Your task to perform on an android device: Empty the shopping cart on walmart.com. Search for razer blackwidow on walmart.com, select the first entry, and add it to the cart. Image 0: 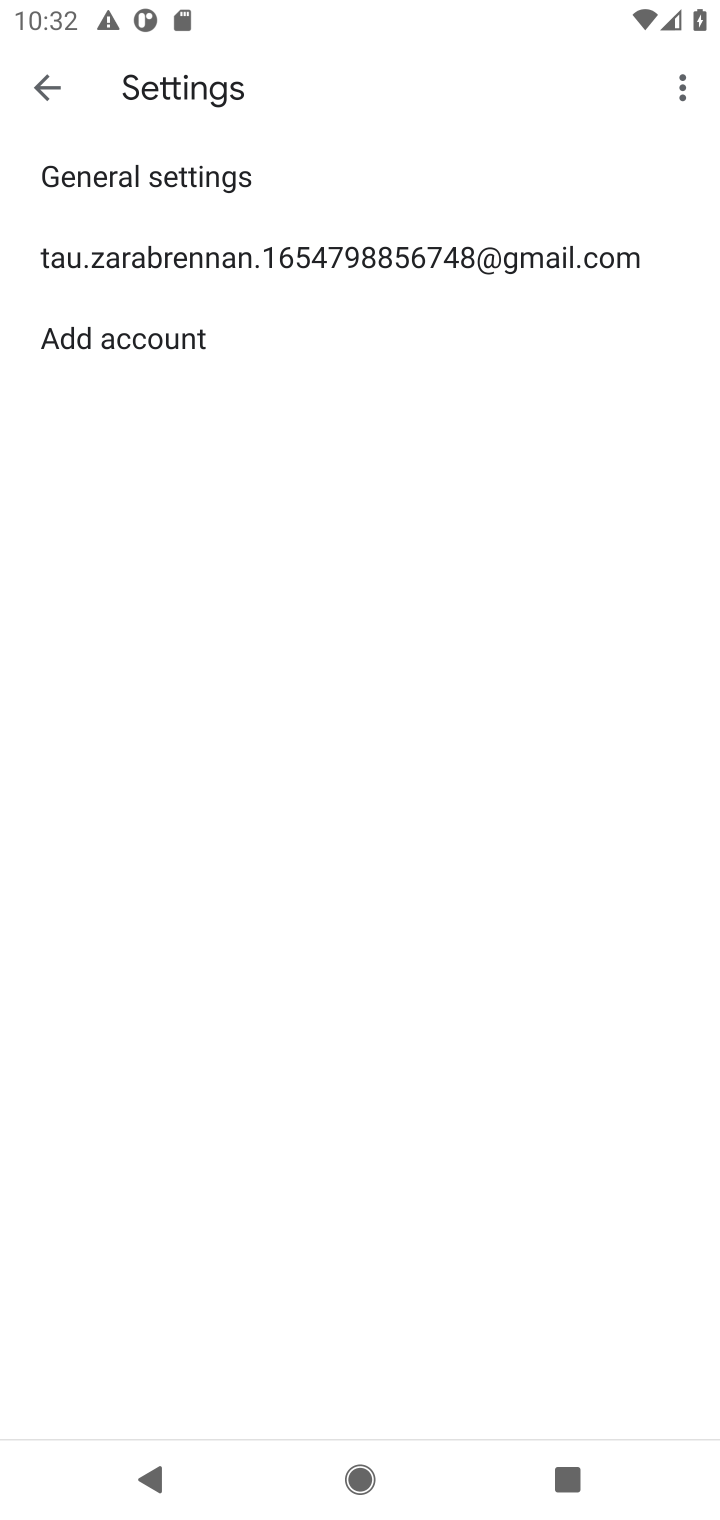
Step 0: press home button
Your task to perform on an android device: Empty the shopping cart on walmart.com. Search for razer blackwidow on walmart.com, select the first entry, and add it to the cart. Image 1: 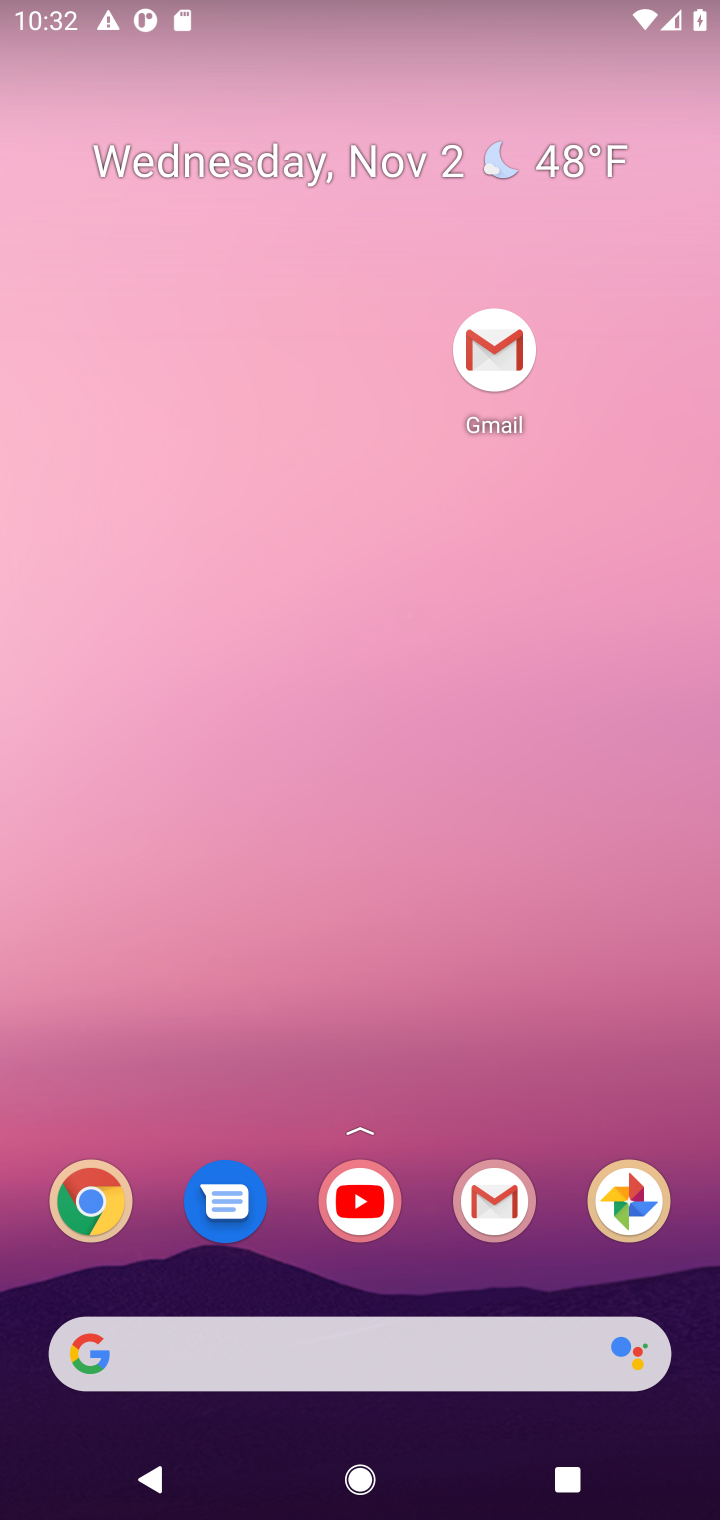
Step 1: drag from (424, 1233) to (270, 201)
Your task to perform on an android device: Empty the shopping cart on walmart.com. Search for razer blackwidow on walmart.com, select the first entry, and add it to the cart. Image 2: 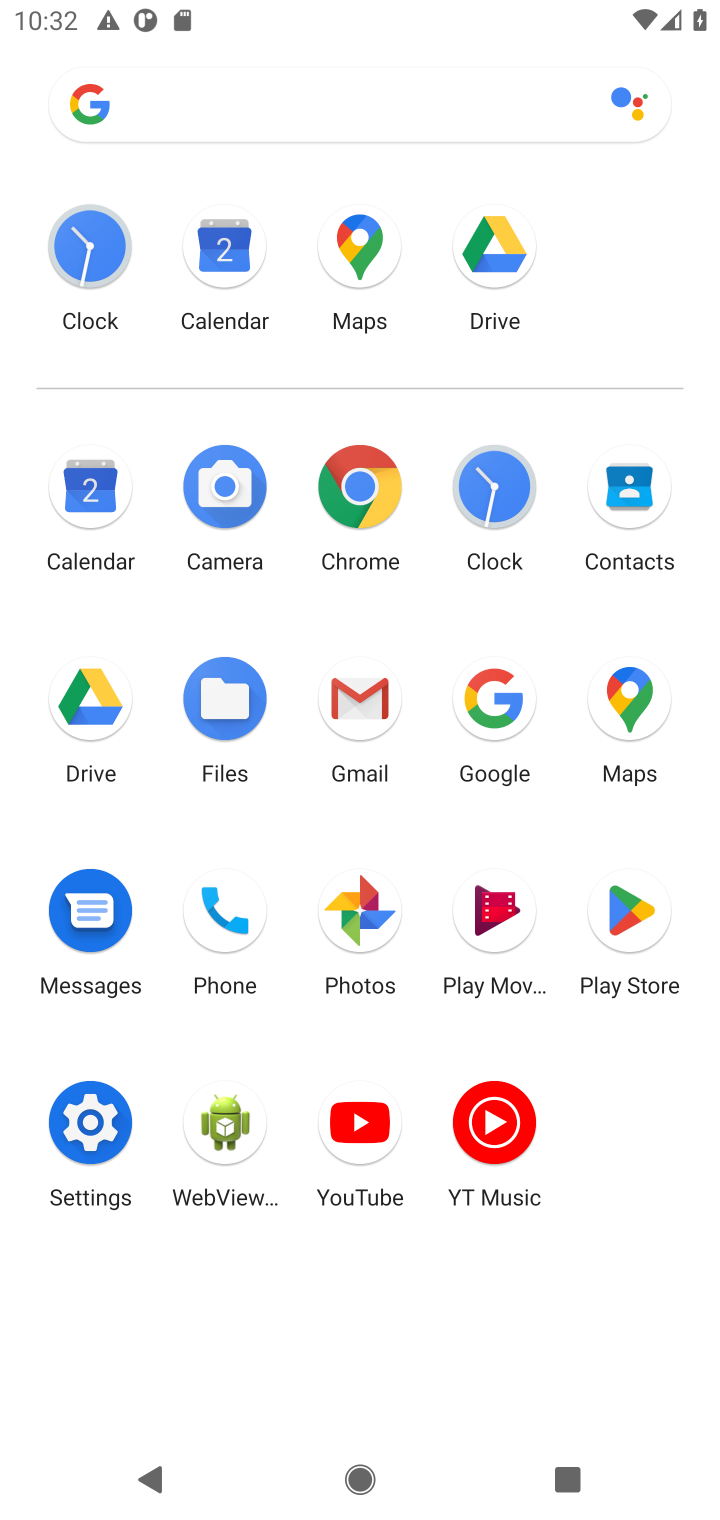
Step 2: click (358, 486)
Your task to perform on an android device: Empty the shopping cart on walmart.com. Search for razer blackwidow on walmart.com, select the first entry, and add it to the cart. Image 3: 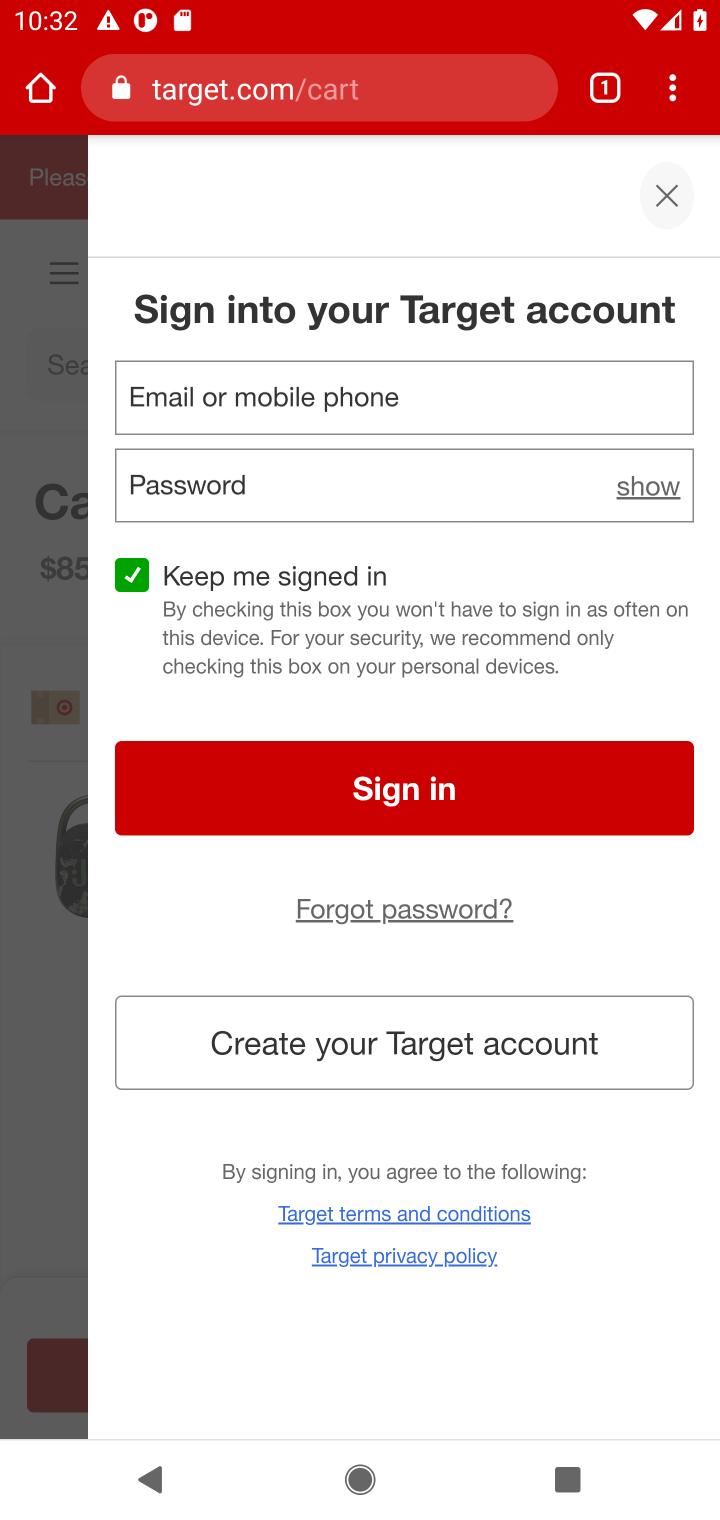
Step 3: click (441, 71)
Your task to perform on an android device: Empty the shopping cart on walmart.com. Search for razer blackwidow on walmart.com, select the first entry, and add it to the cart. Image 4: 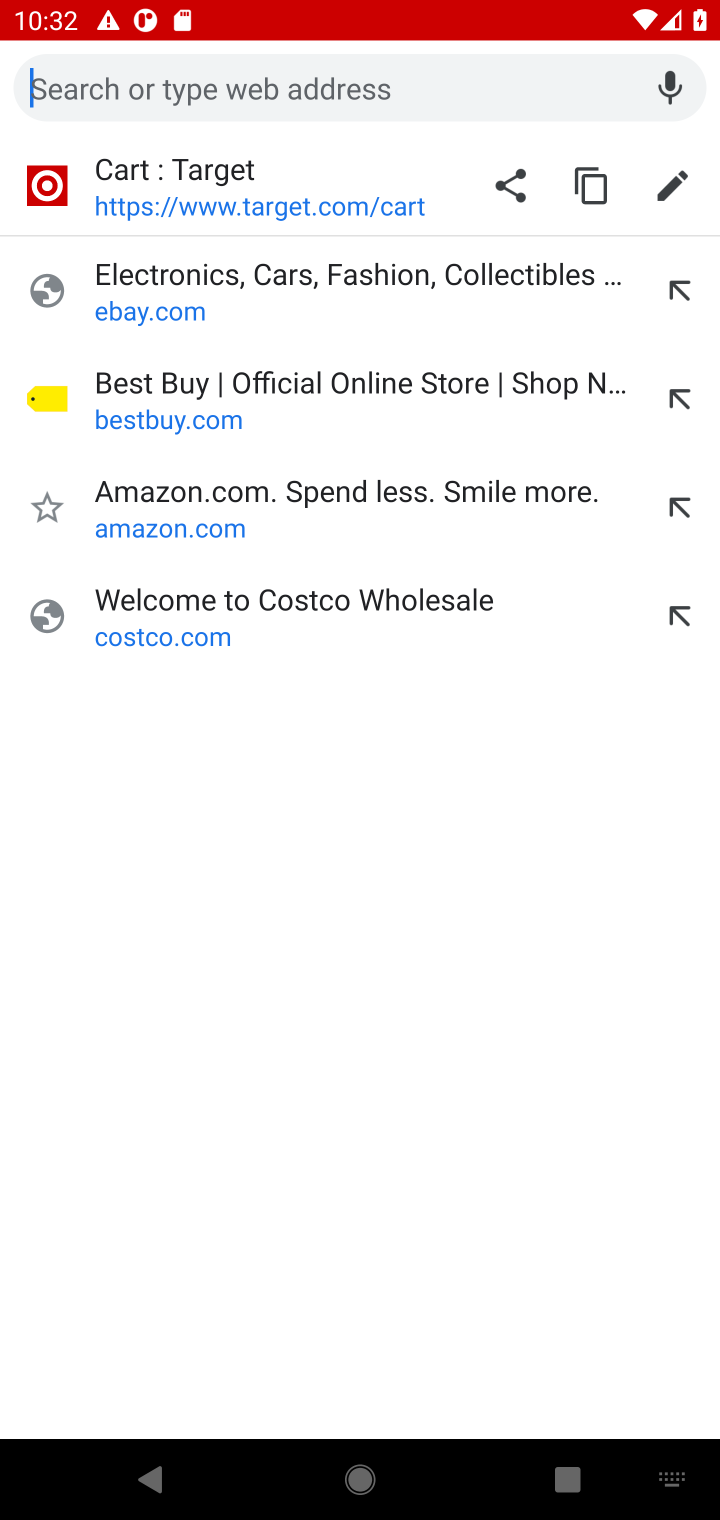
Step 4: type "walmart.com"
Your task to perform on an android device: Empty the shopping cart on walmart.com. Search for razer blackwidow on walmart.com, select the first entry, and add it to the cart. Image 5: 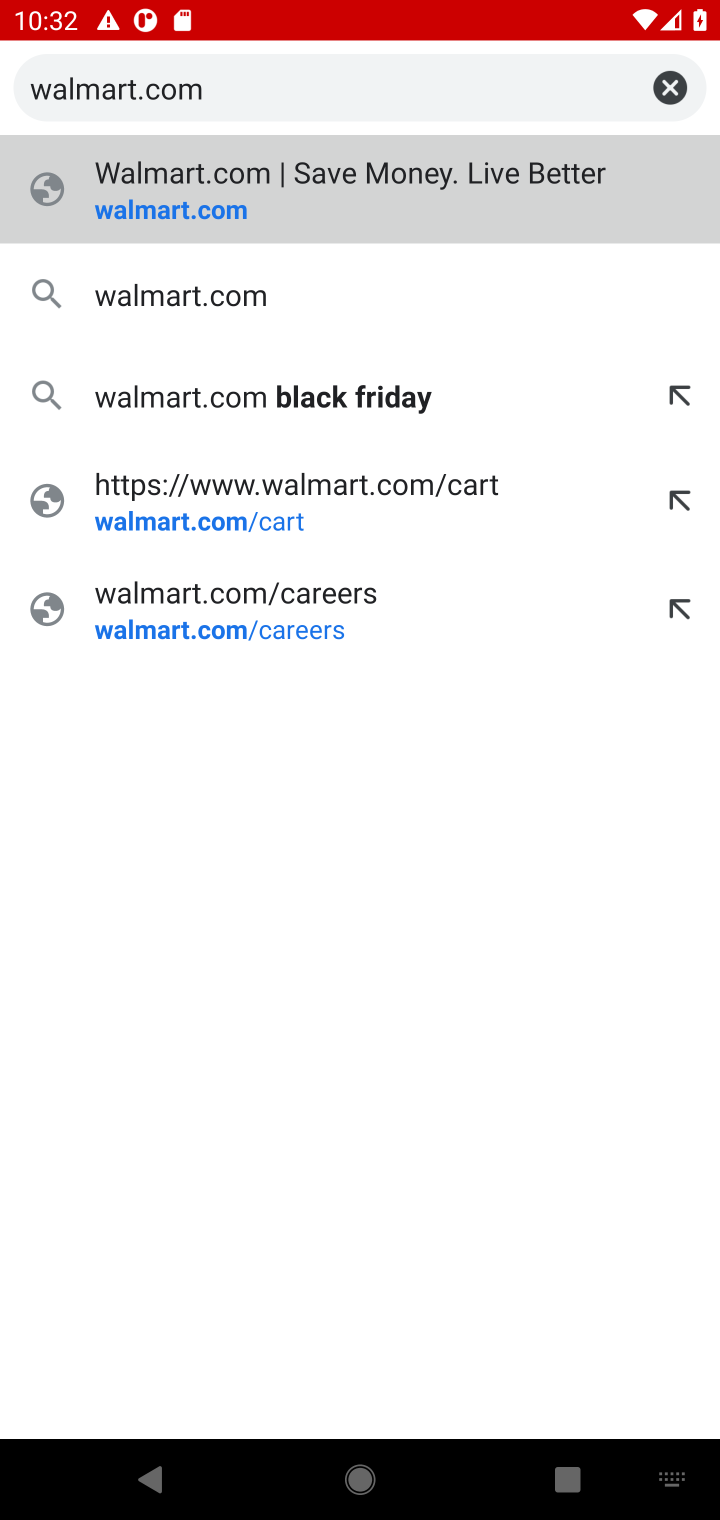
Step 5: press enter
Your task to perform on an android device: Empty the shopping cart on walmart.com. Search for razer blackwidow on walmart.com, select the first entry, and add it to the cart. Image 6: 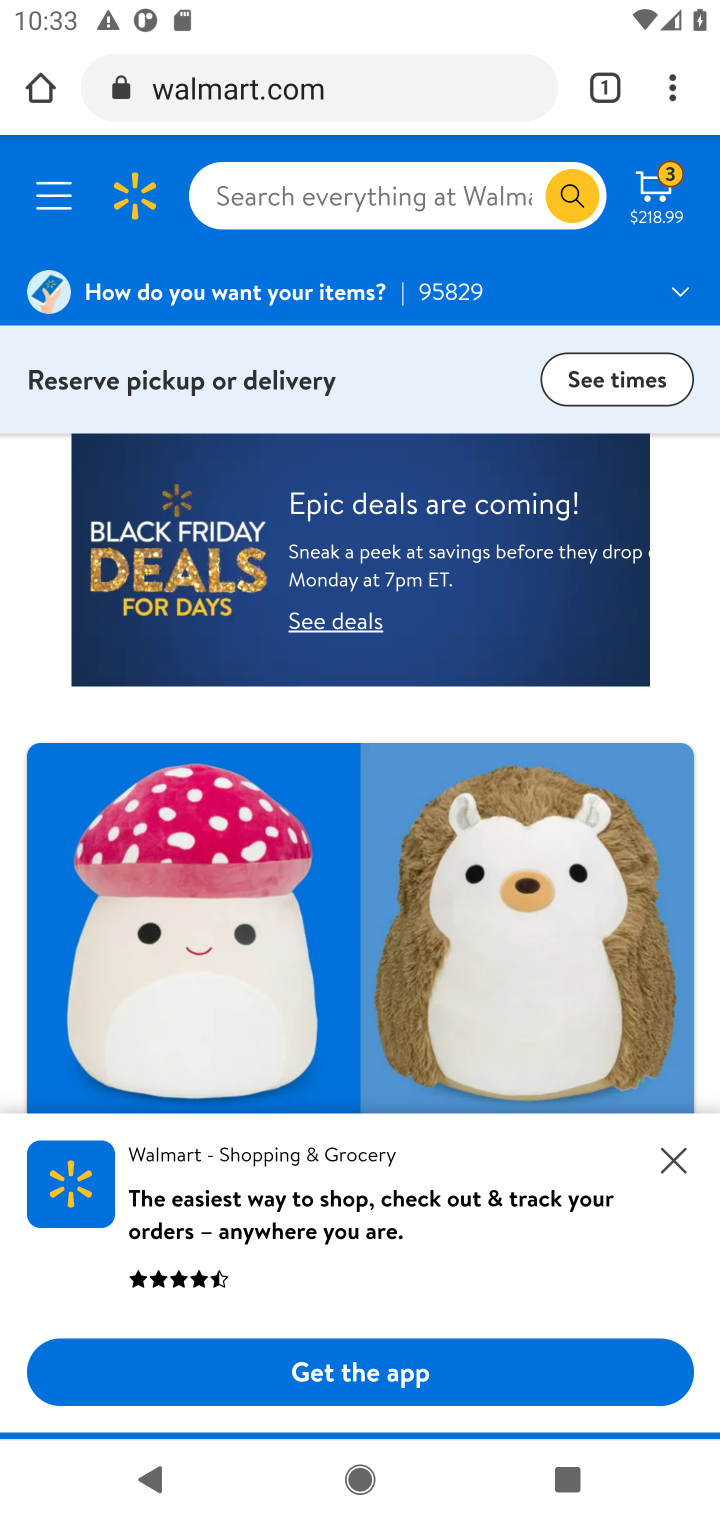
Step 6: click (640, 177)
Your task to perform on an android device: Empty the shopping cart on walmart.com. Search for razer blackwidow on walmart.com, select the first entry, and add it to the cart. Image 7: 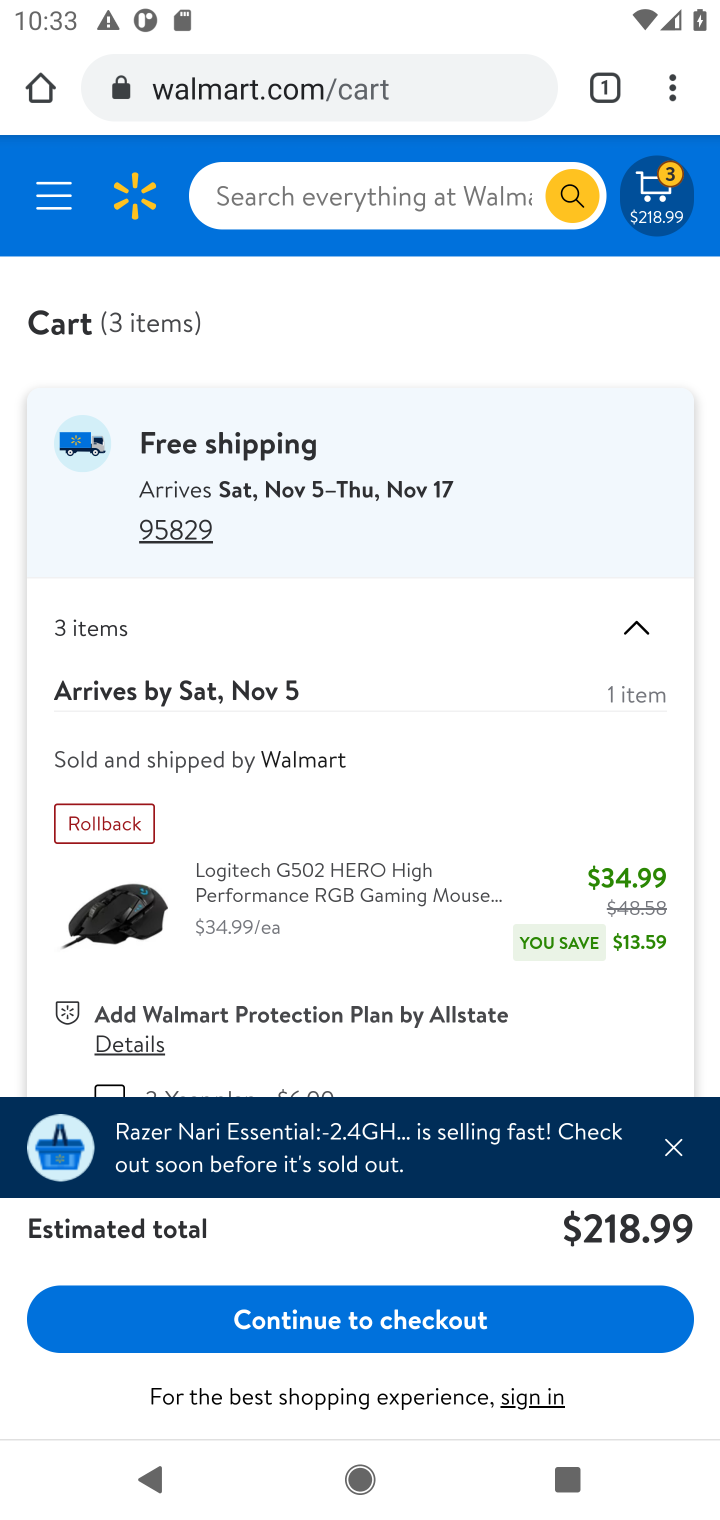
Step 7: drag from (363, 984) to (12, 604)
Your task to perform on an android device: Empty the shopping cart on walmart.com. Search for razer blackwidow on walmart.com, select the first entry, and add it to the cart. Image 8: 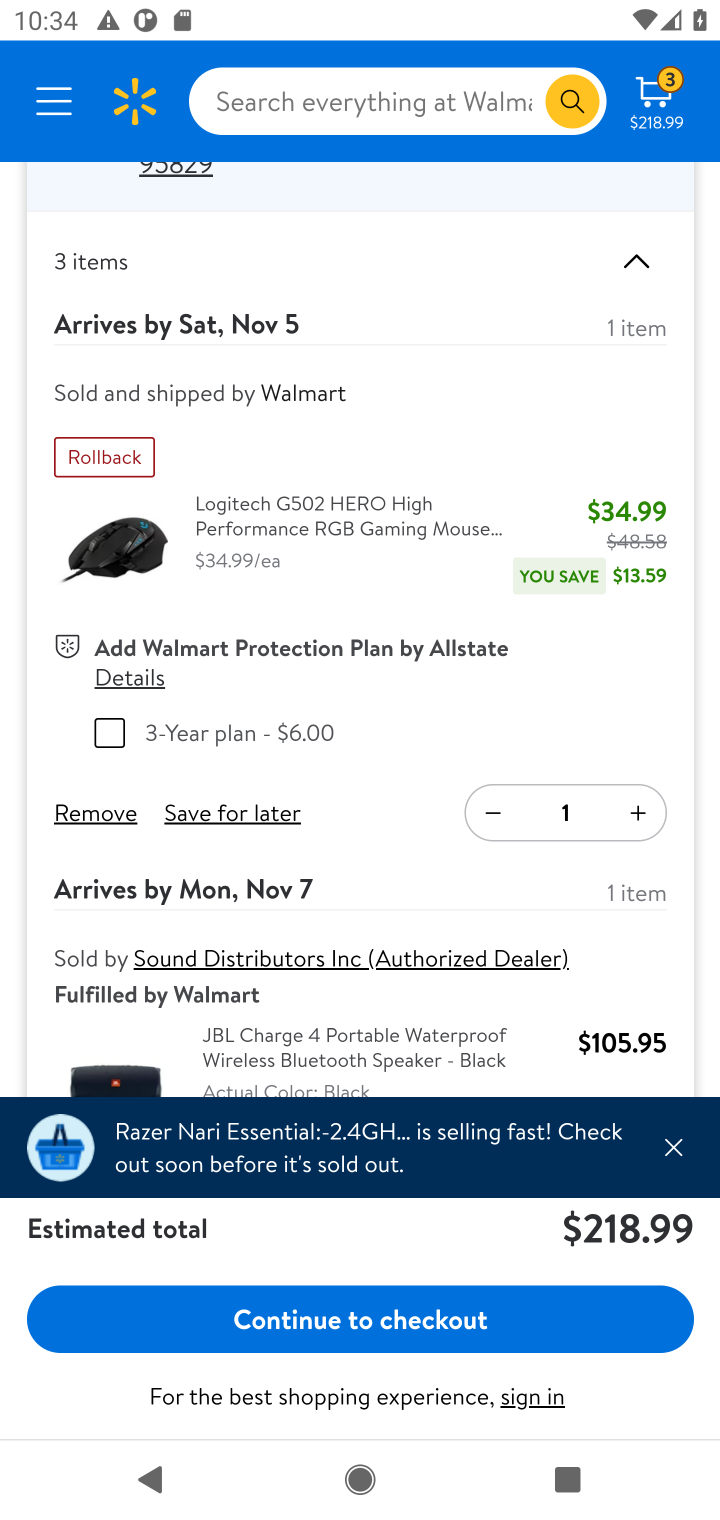
Step 8: click (78, 813)
Your task to perform on an android device: Empty the shopping cart on walmart.com. Search for razer blackwidow on walmart.com, select the first entry, and add it to the cart. Image 9: 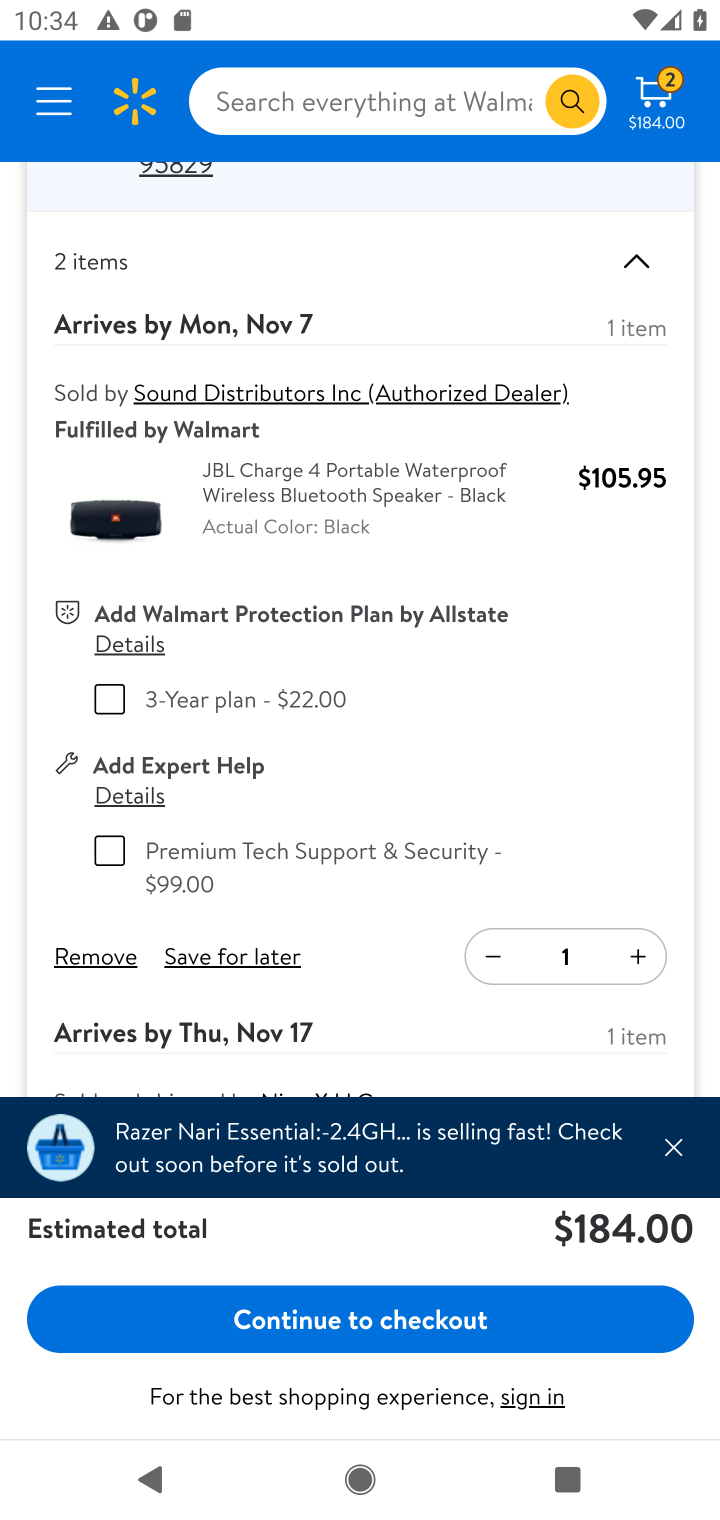
Step 9: click (76, 946)
Your task to perform on an android device: Empty the shopping cart on walmart.com. Search for razer blackwidow on walmart.com, select the first entry, and add it to the cart. Image 10: 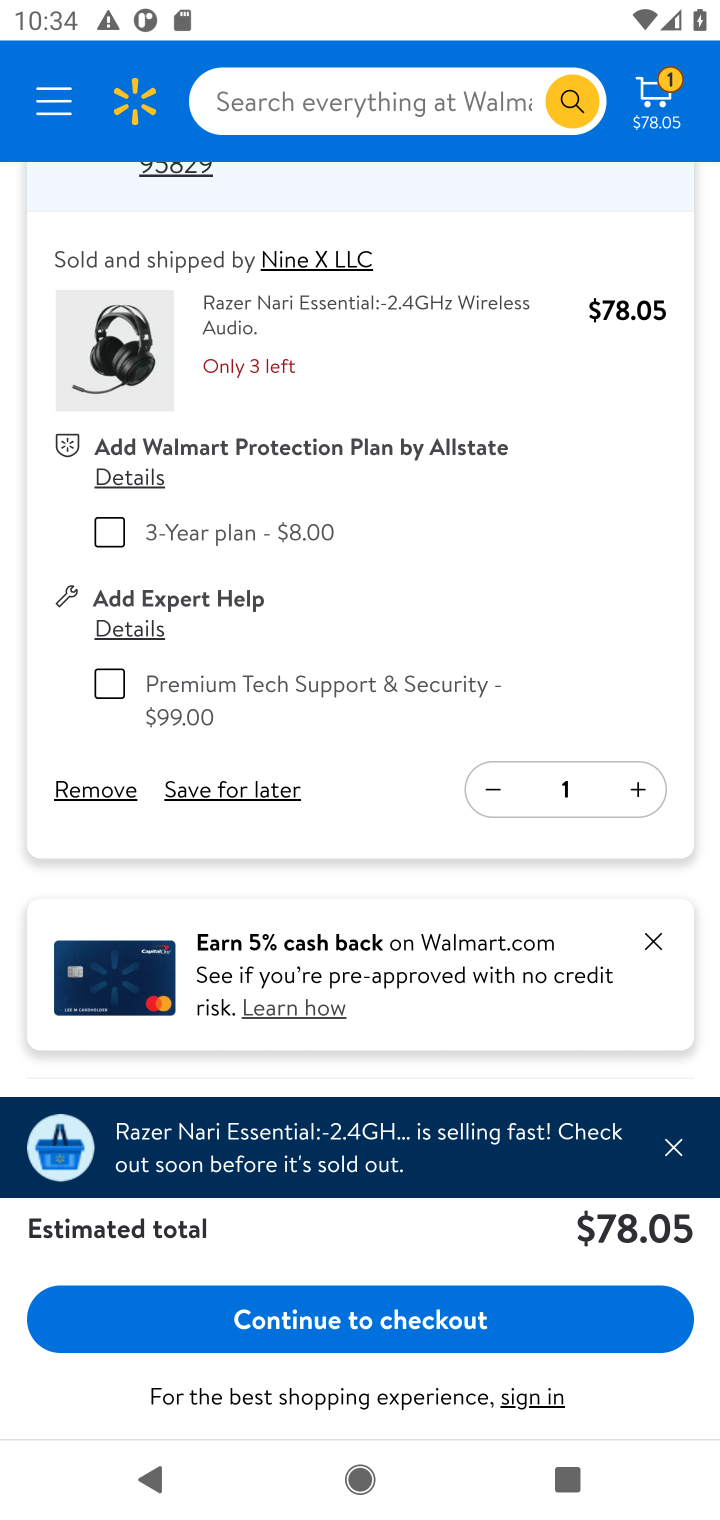
Step 10: drag from (218, 557) to (214, 696)
Your task to perform on an android device: Empty the shopping cart on walmart.com. Search for razer blackwidow on walmart.com, select the first entry, and add it to the cart. Image 11: 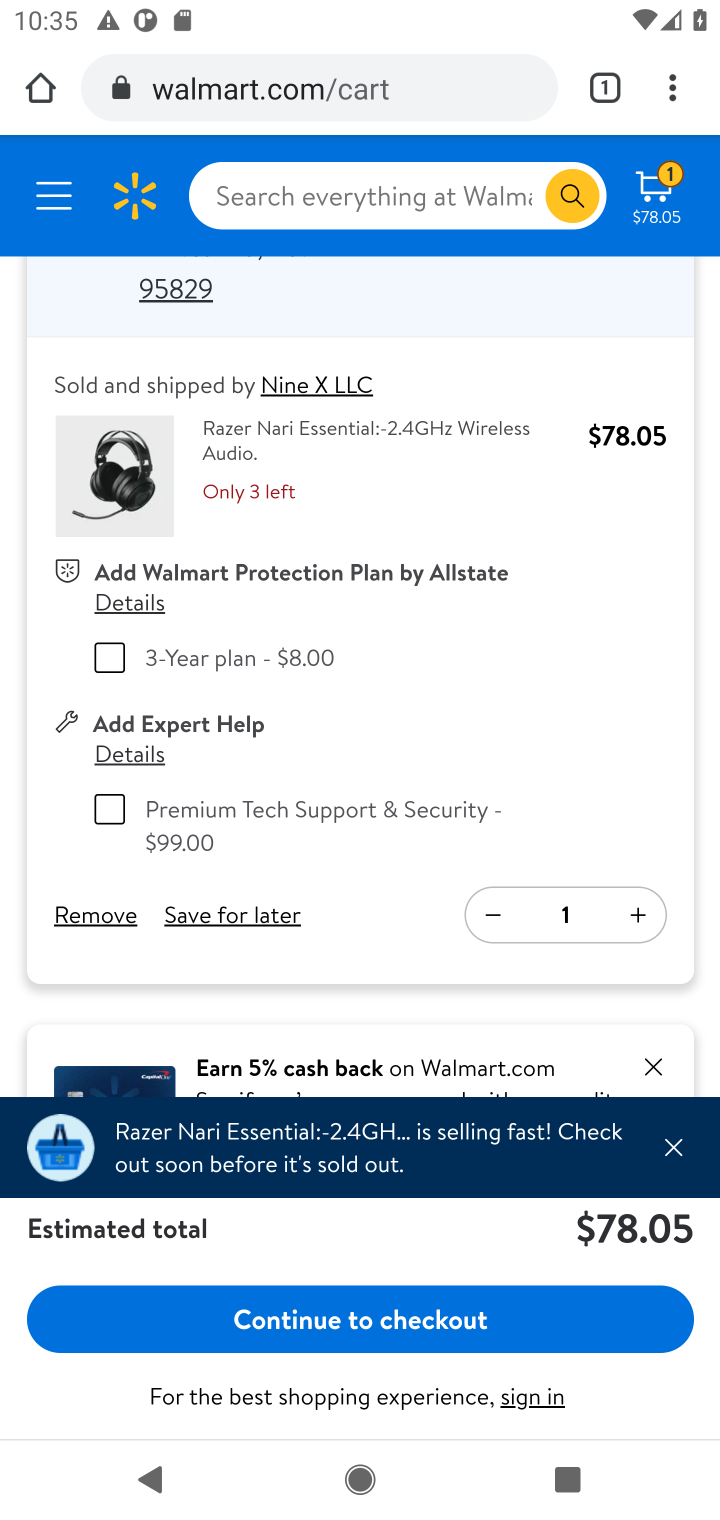
Step 11: click (119, 907)
Your task to perform on an android device: Empty the shopping cart on walmart.com. Search for razer blackwidow on walmart.com, select the first entry, and add it to the cart. Image 12: 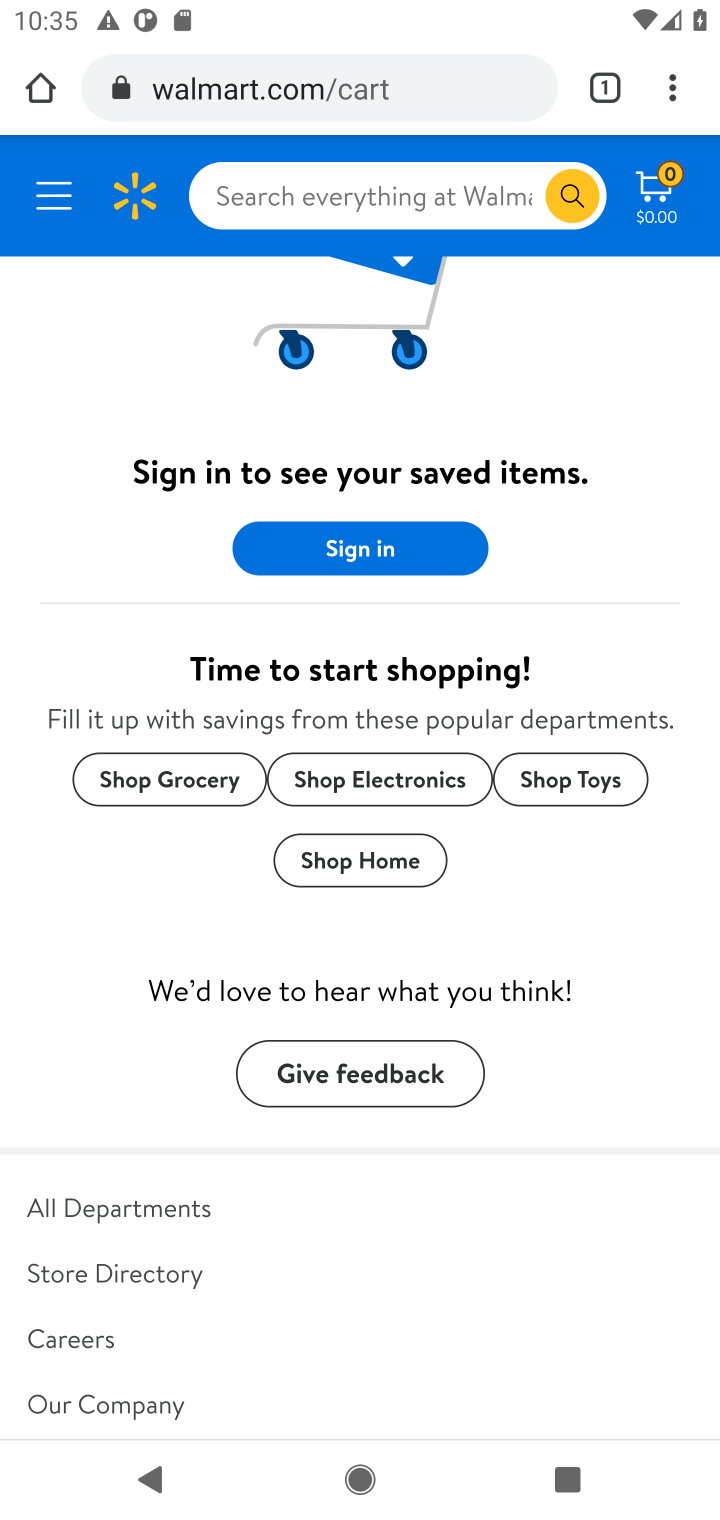
Step 12: click (362, 186)
Your task to perform on an android device: Empty the shopping cart on walmart.com. Search for razer blackwidow on walmart.com, select the first entry, and add it to the cart. Image 13: 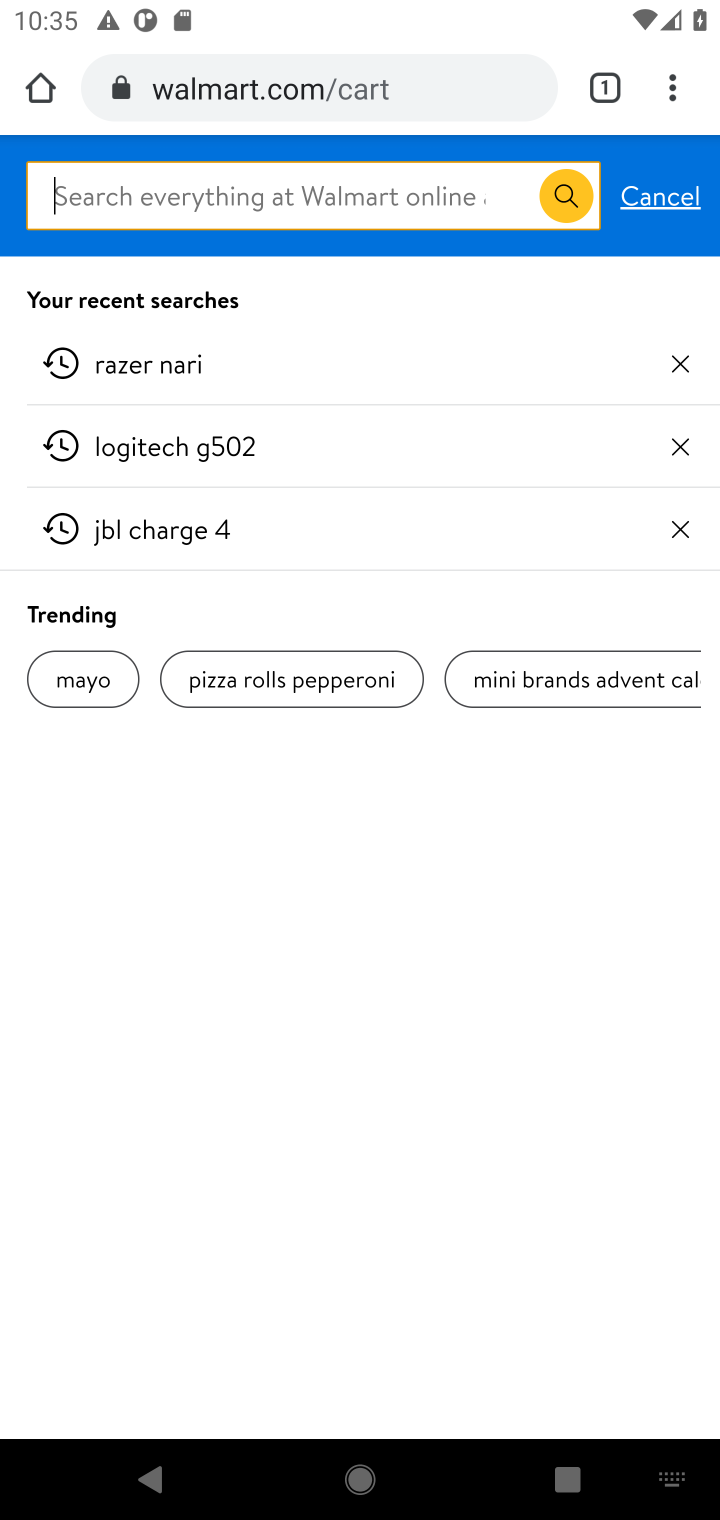
Step 13: type "razer blackwidow"
Your task to perform on an android device: Empty the shopping cart on walmart.com. Search for razer blackwidow on walmart.com, select the first entry, and add it to the cart. Image 14: 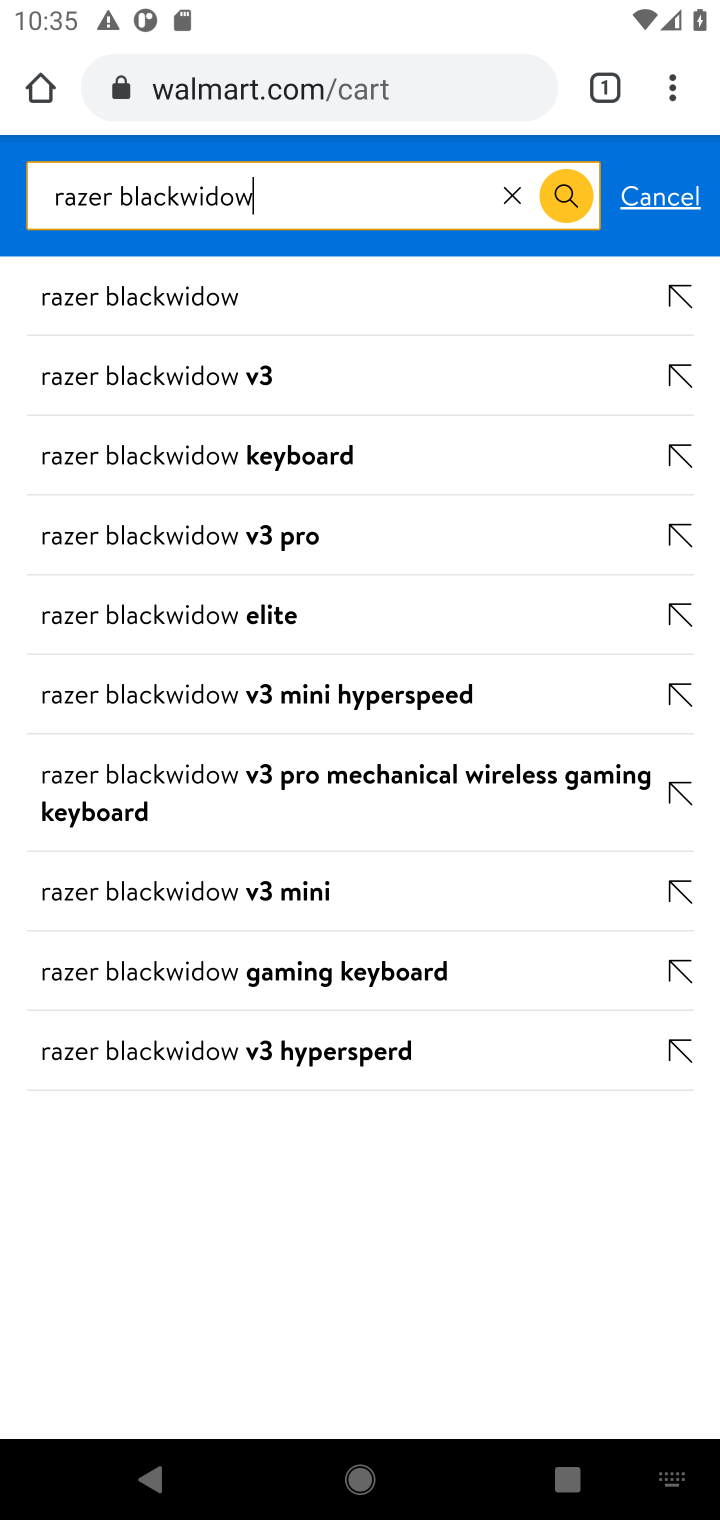
Step 14: press enter
Your task to perform on an android device: Empty the shopping cart on walmart.com. Search for razer blackwidow on walmart.com, select the first entry, and add it to the cart. Image 15: 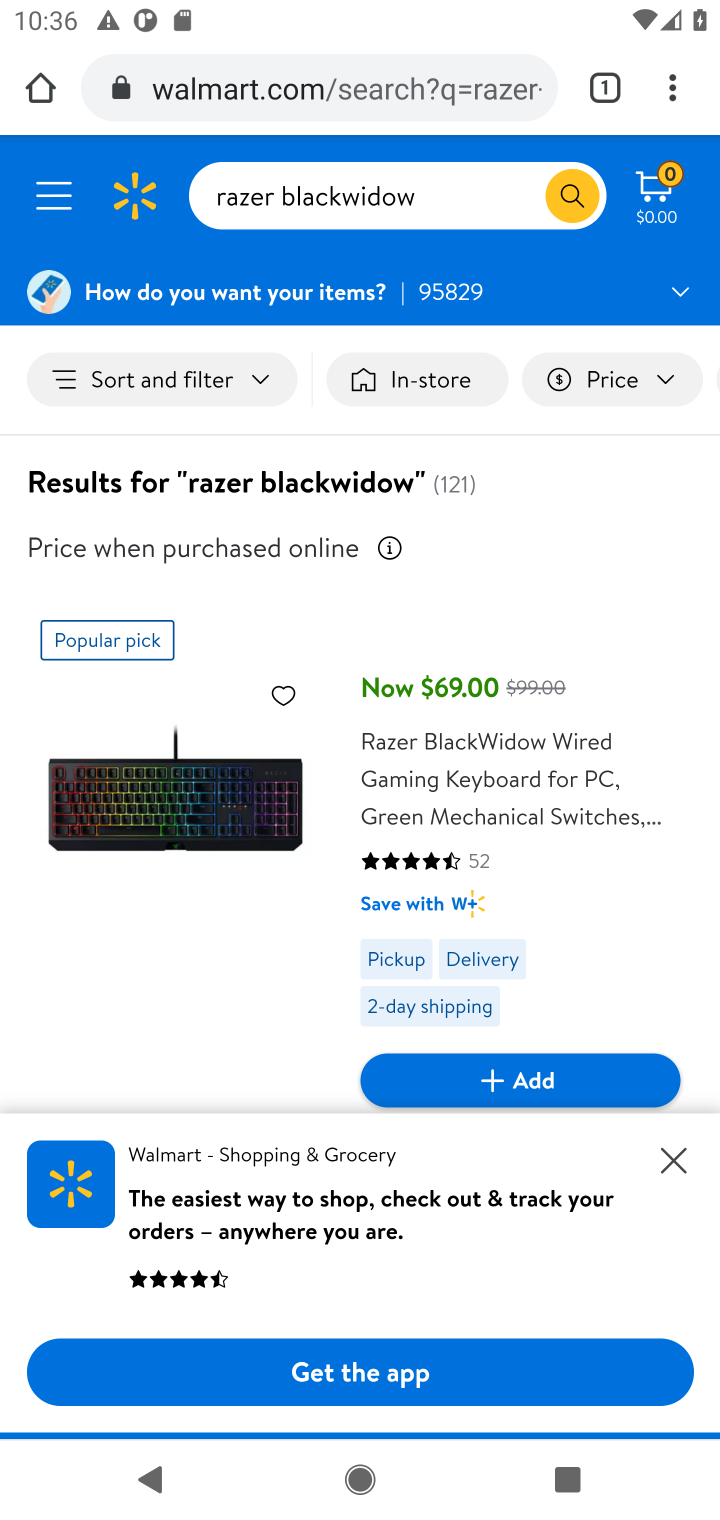
Step 15: click (585, 1082)
Your task to perform on an android device: Empty the shopping cart on walmart.com. Search for razer blackwidow on walmart.com, select the first entry, and add it to the cart. Image 16: 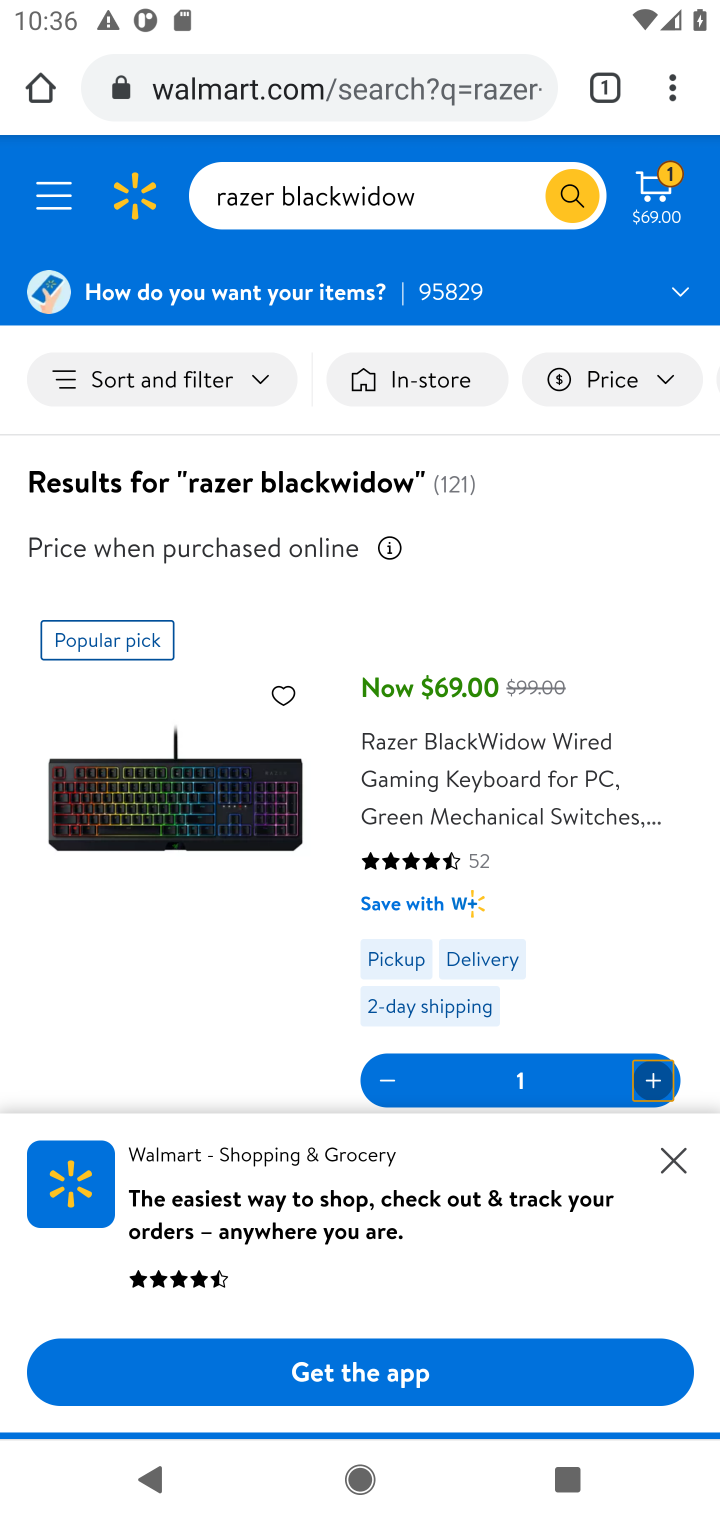
Step 16: task complete